Your task to perform on an android device: toggle location history Image 0: 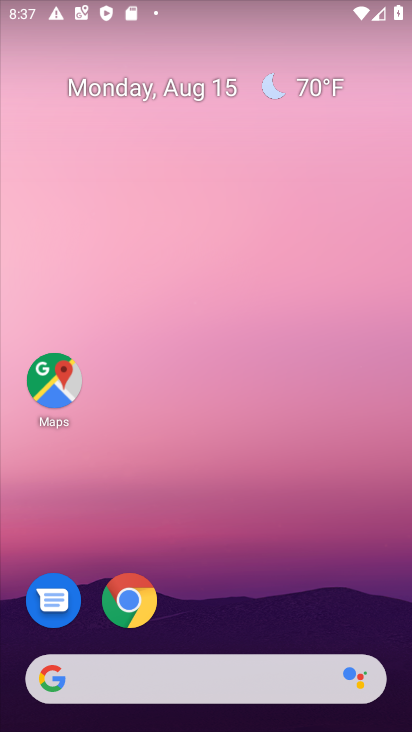
Step 0: drag from (223, 644) to (162, 15)
Your task to perform on an android device: toggle location history Image 1: 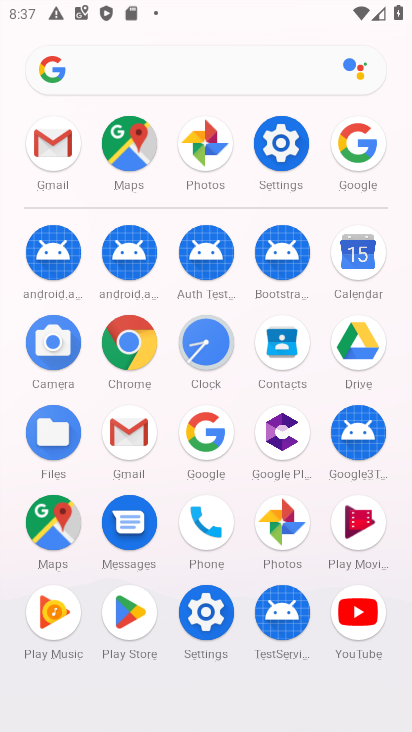
Step 1: click (291, 148)
Your task to perform on an android device: toggle location history Image 2: 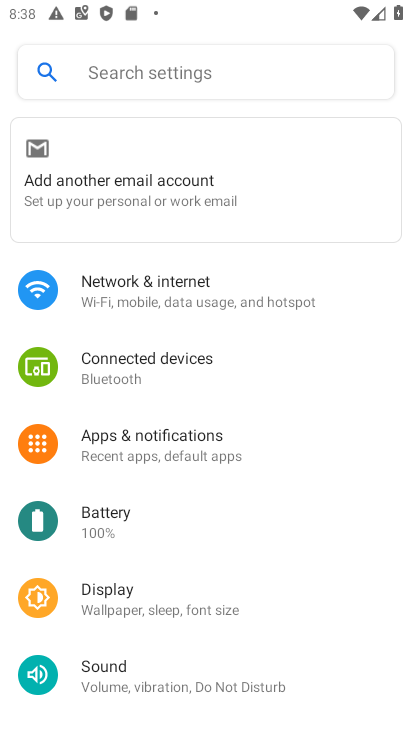
Step 2: drag from (130, 616) to (130, 302)
Your task to perform on an android device: toggle location history Image 3: 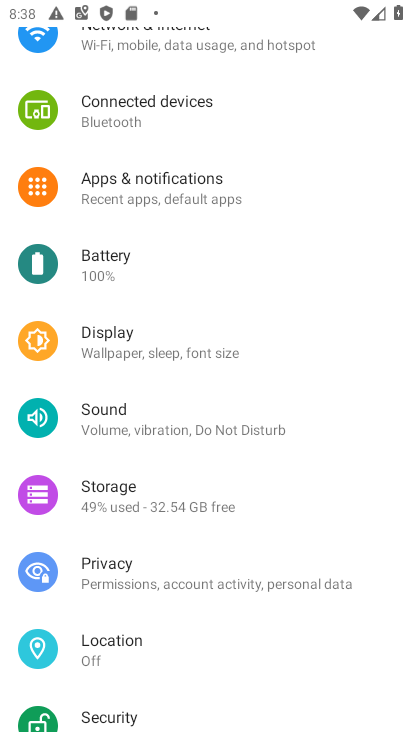
Step 3: click (117, 641)
Your task to perform on an android device: toggle location history Image 4: 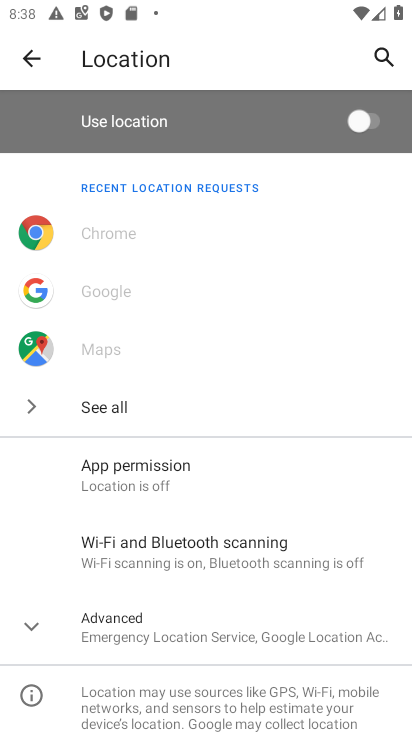
Step 4: click (127, 623)
Your task to perform on an android device: toggle location history Image 5: 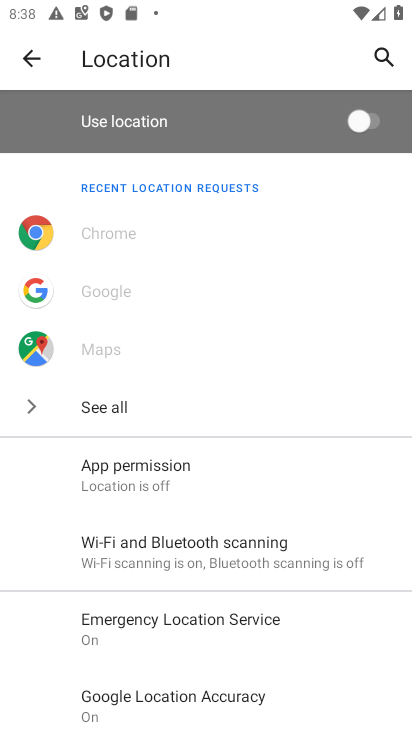
Step 5: drag from (219, 666) to (251, 309)
Your task to perform on an android device: toggle location history Image 6: 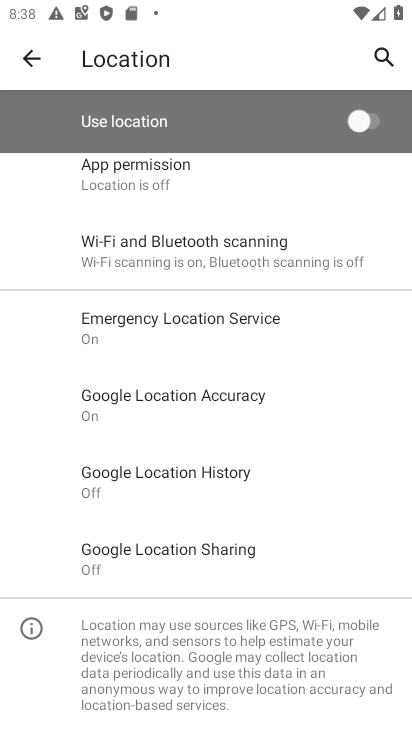
Step 6: click (198, 467)
Your task to perform on an android device: toggle location history Image 7: 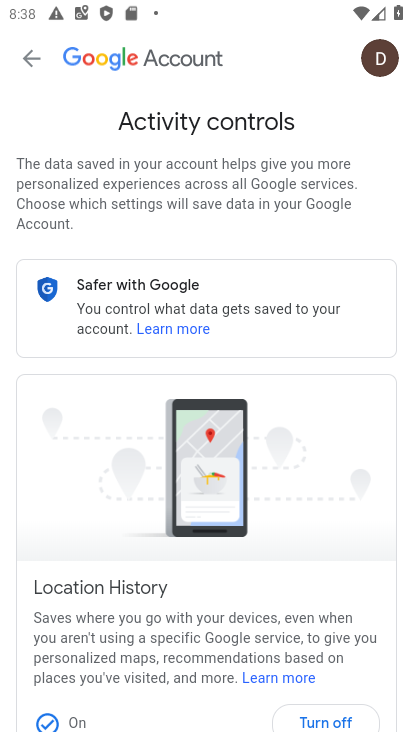
Step 7: click (314, 711)
Your task to perform on an android device: toggle location history Image 8: 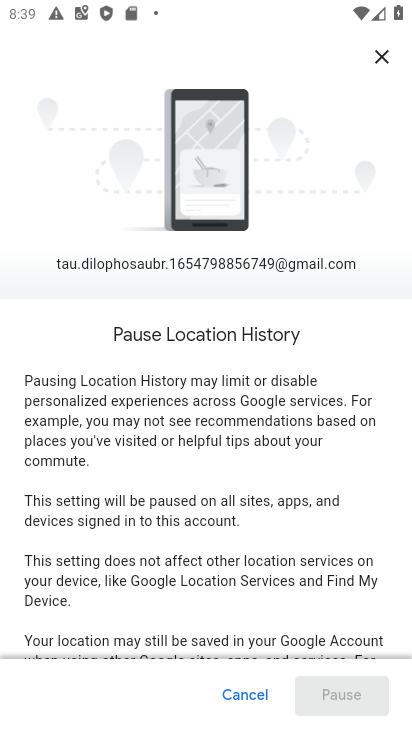
Step 8: drag from (354, 576) to (349, 348)
Your task to perform on an android device: toggle location history Image 9: 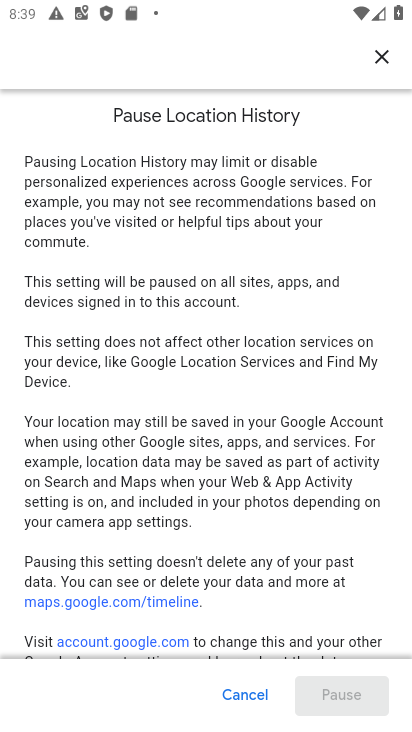
Step 9: drag from (286, 637) to (308, 324)
Your task to perform on an android device: toggle location history Image 10: 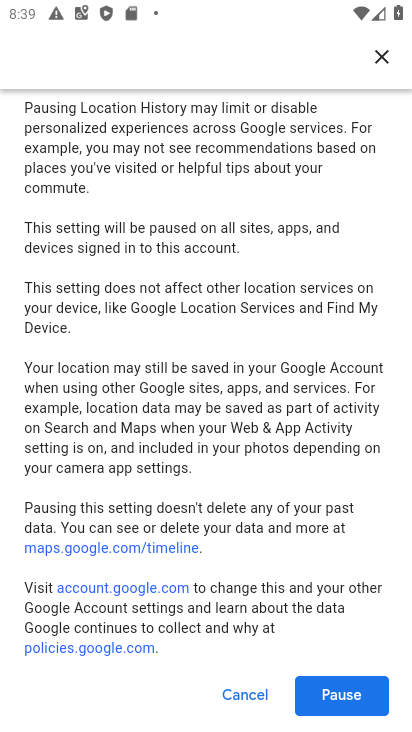
Step 10: click (338, 695)
Your task to perform on an android device: toggle location history Image 11: 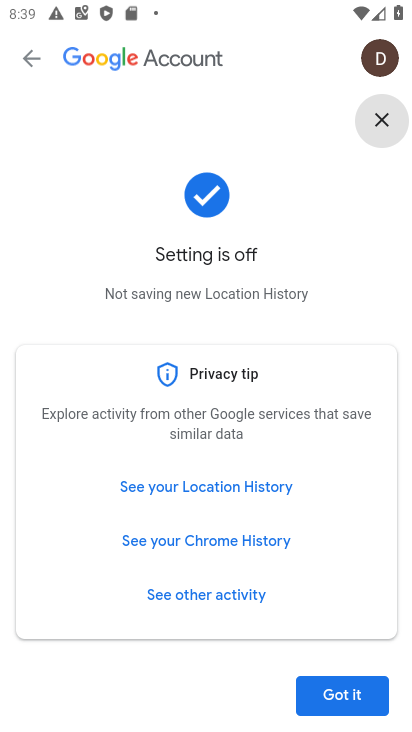
Step 11: click (335, 695)
Your task to perform on an android device: toggle location history Image 12: 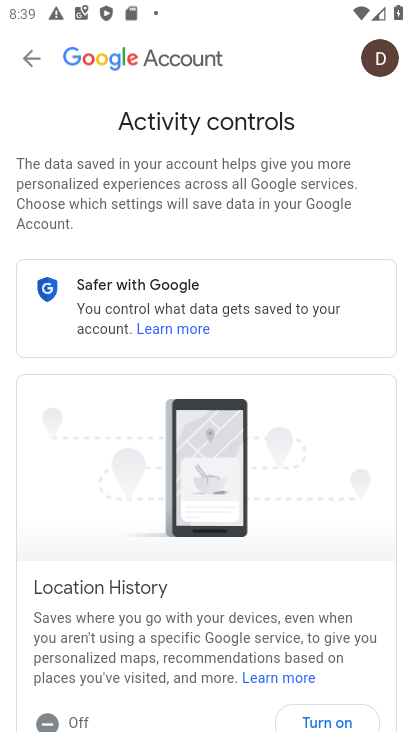
Step 12: task complete